Your task to perform on an android device: Open the calendar and show me this week's events? Image 0: 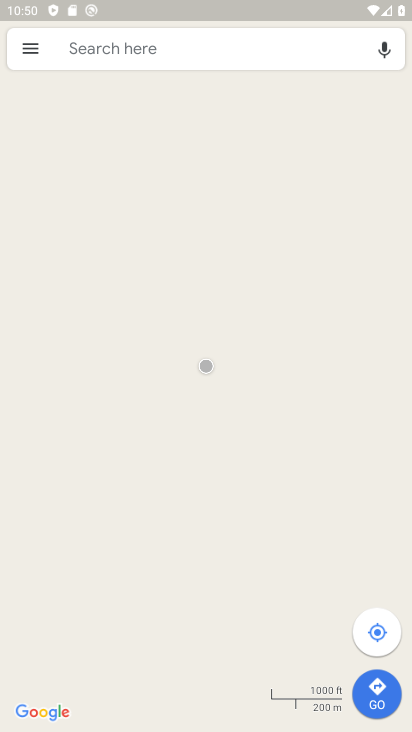
Step 0: press home button
Your task to perform on an android device: Open the calendar and show me this week's events? Image 1: 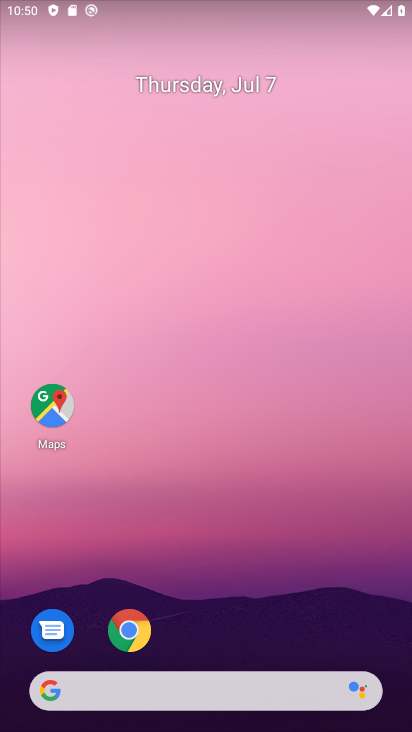
Step 1: drag from (376, 640) to (326, 73)
Your task to perform on an android device: Open the calendar and show me this week's events? Image 2: 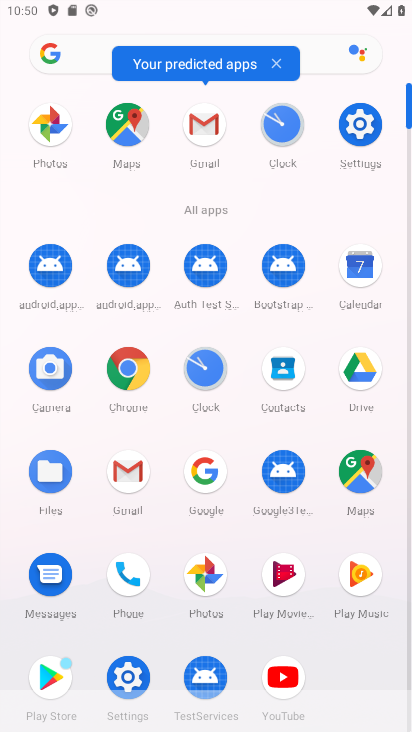
Step 2: click (361, 269)
Your task to perform on an android device: Open the calendar and show me this week's events? Image 3: 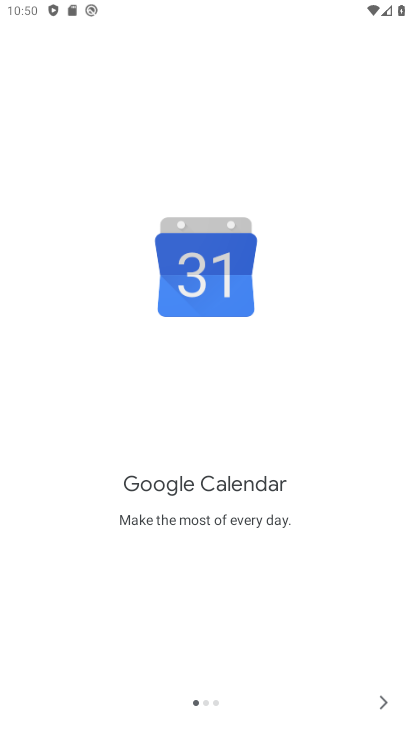
Step 3: click (383, 699)
Your task to perform on an android device: Open the calendar and show me this week's events? Image 4: 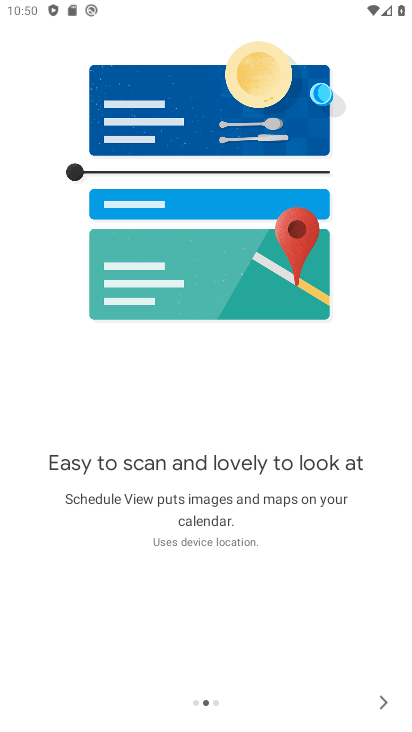
Step 4: click (383, 699)
Your task to perform on an android device: Open the calendar and show me this week's events? Image 5: 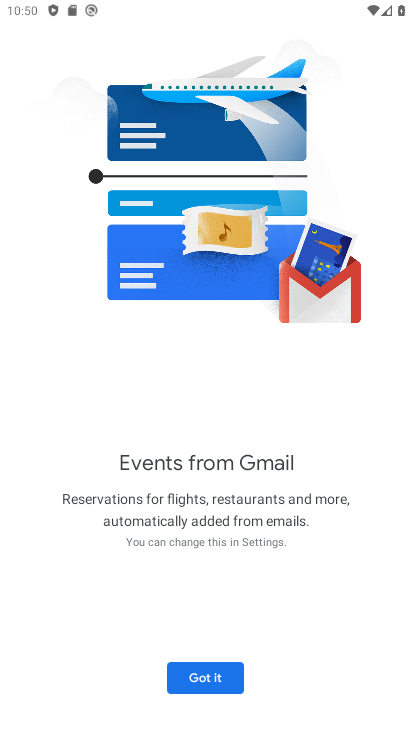
Step 5: click (200, 675)
Your task to perform on an android device: Open the calendar and show me this week's events? Image 6: 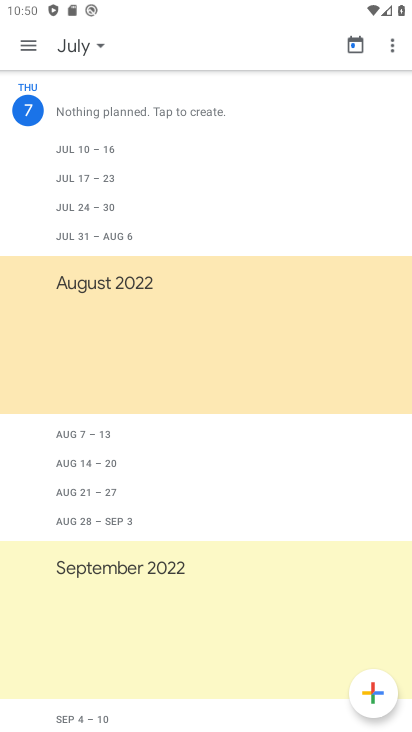
Step 6: click (33, 37)
Your task to perform on an android device: Open the calendar and show me this week's events? Image 7: 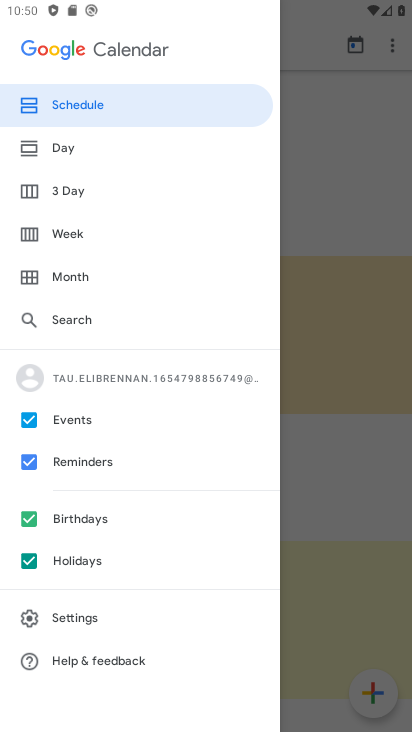
Step 7: click (70, 238)
Your task to perform on an android device: Open the calendar and show me this week's events? Image 8: 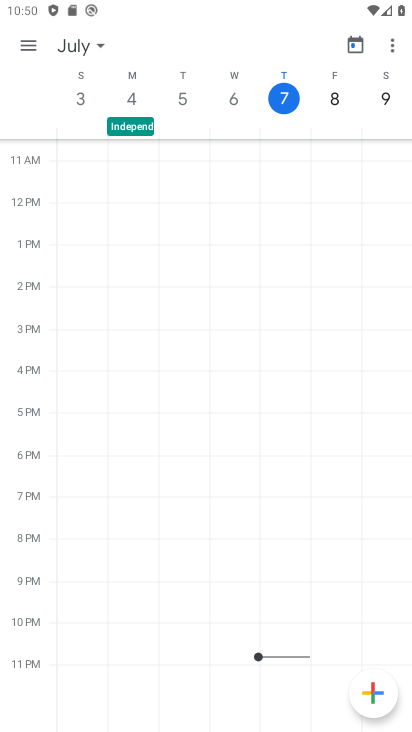
Step 8: task complete